Your task to perform on an android device: open app "ZOOM Cloud Meetings" Image 0: 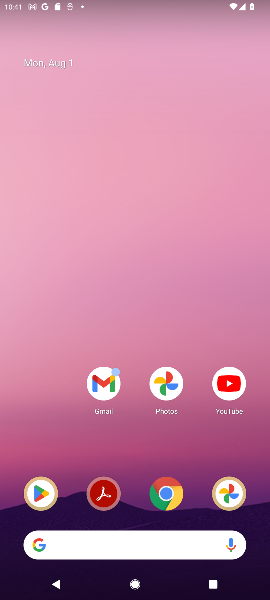
Step 0: click (35, 496)
Your task to perform on an android device: open app "ZOOM Cloud Meetings" Image 1: 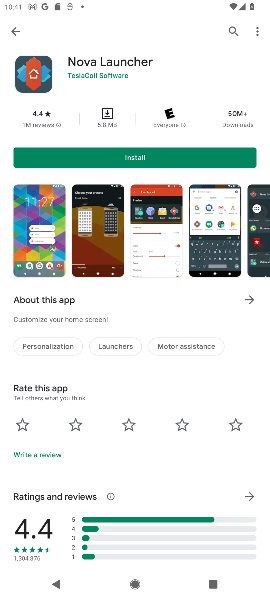
Step 1: click (237, 30)
Your task to perform on an android device: open app "ZOOM Cloud Meetings" Image 2: 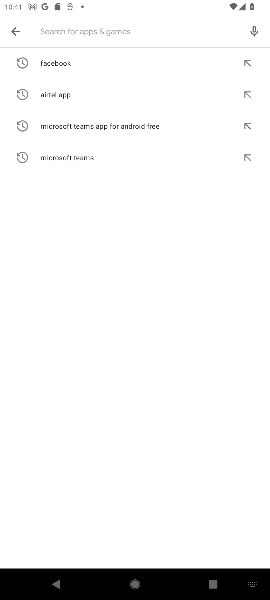
Step 2: type "zoom"
Your task to perform on an android device: open app "ZOOM Cloud Meetings" Image 3: 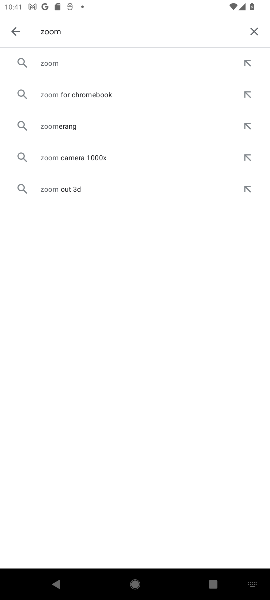
Step 3: click (244, 69)
Your task to perform on an android device: open app "ZOOM Cloud Meetings" Image 4: 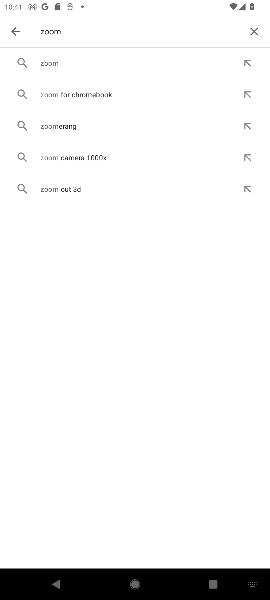
Step 4: click (162, 69)
Your task to perform on an android device: open app "ZOOM Cloud Meetings" Image 5: 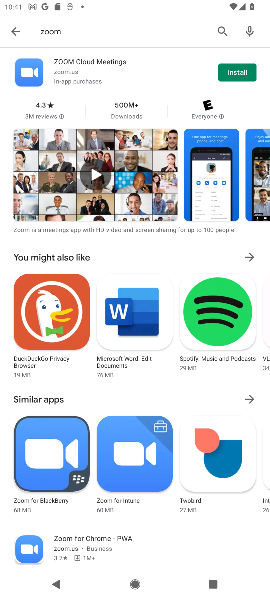
Step 5: click (235, 77)
Your task to perform on an android device: open app "ZOOM Cloud Meetings" Image 6: 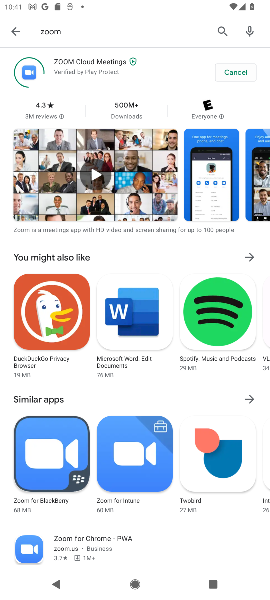
Step 6: task complete